Your task to perform on an android device: turn on improve location accuracy Image 0: 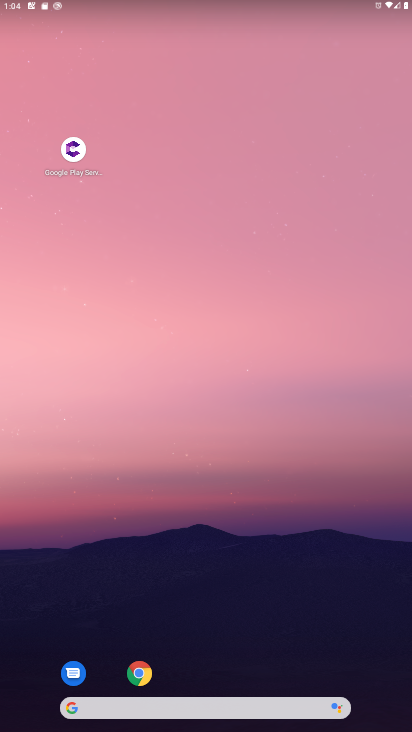
Step 0: drag from (213, 659) to (269, 248)
Your task to perform on an android device: turn on improve location accuracy Image 1: 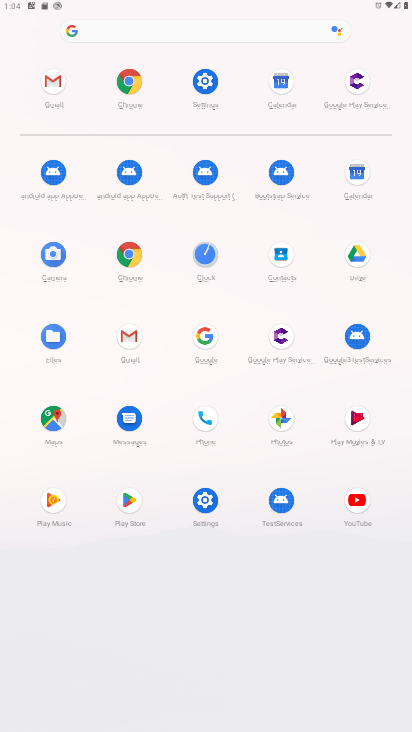
Step 1: click (190, 85)
Your task to perform on an android device: turn on improve location accuracy Image 2: 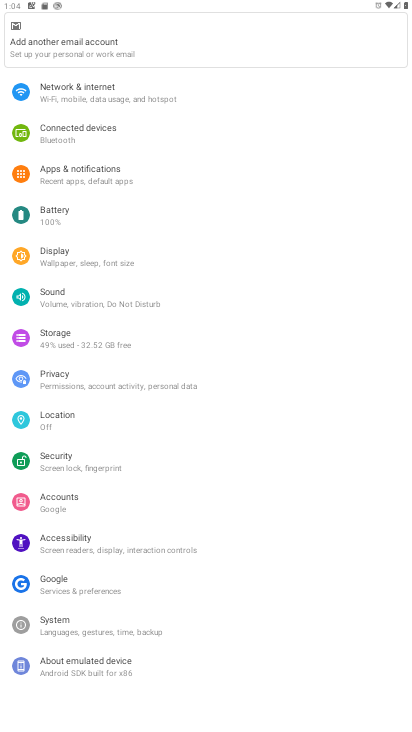
Step 2: click (61, 427)
Your task to perform on an android device: turn on improve location accuracy Image 3: 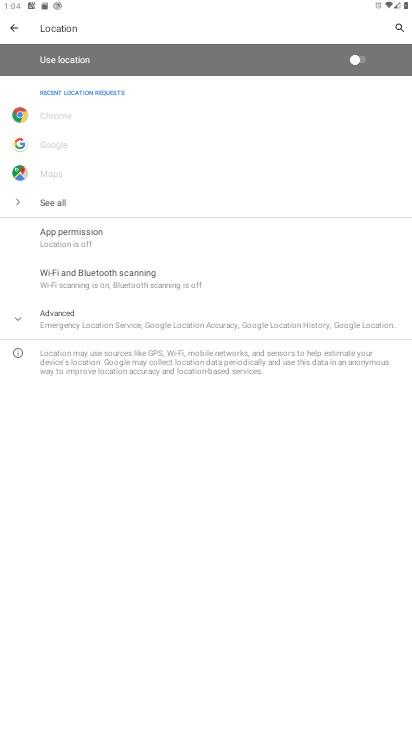
Step 3: click (83, 325)
Your task to perform on an android device: turn on improve location accuracy Image 4: 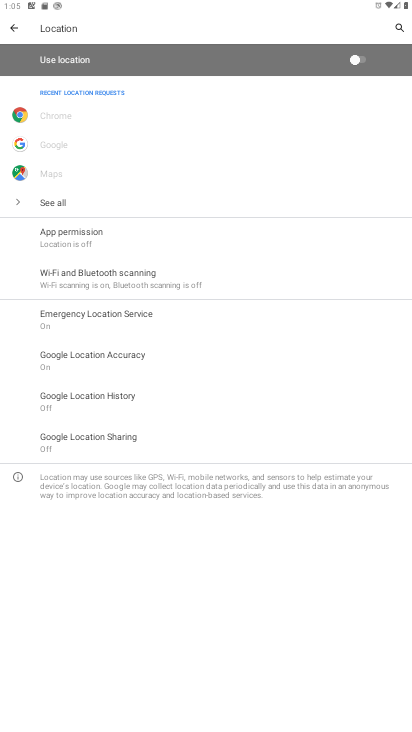
Step 4: click (73, 363)
Your task to perform on an android device: turn on improve location accuracy Image 5: 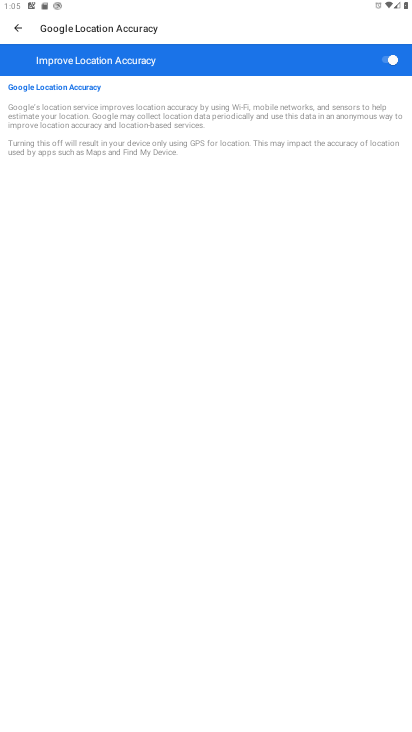
Step 5: task complete